Your task to perform on an android device: see creations saved in the google photos Image 0: 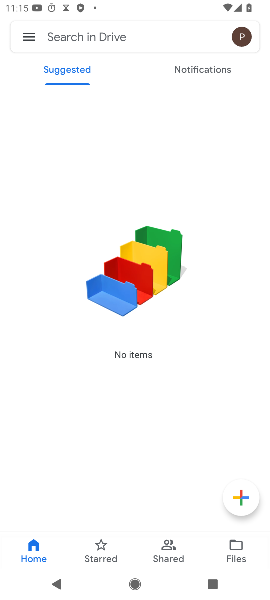
Step 0: press home button
Your task to perform on an android device: see creations saved in the google photos Image 1: 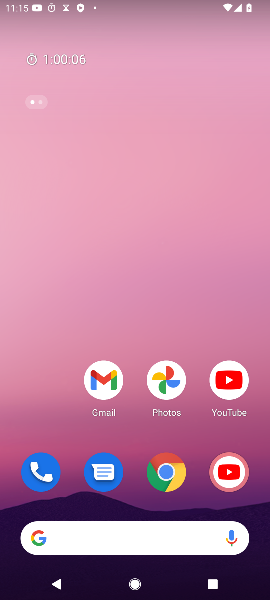
Step 1: click (163, 372)
Your task to perform on an android device: see creations saved in the google photos Image 2: 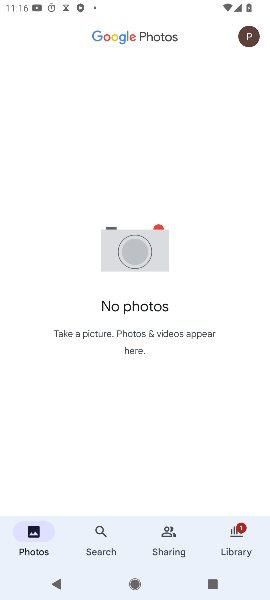
Step 2: click (99, 545)
Your task to perform on an android device: see creations saved in the google photos Image 3: 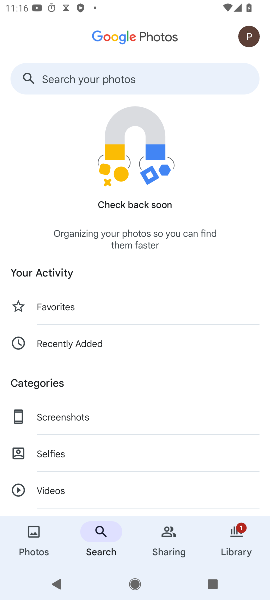
Step 3: drag from (80, 478) to (103, 161)
Your task to perform on an android device: see creations saved in the google photos Image 4: 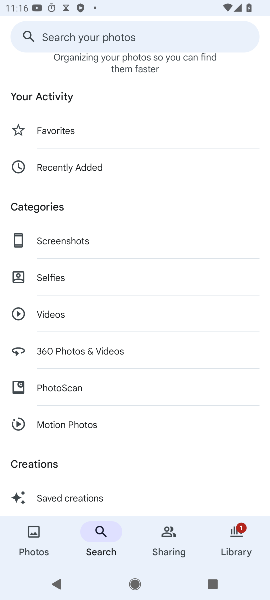
Step 4: click (121, 489)
Your task to perform on an android device: see creations saved in the google photos Image 5: 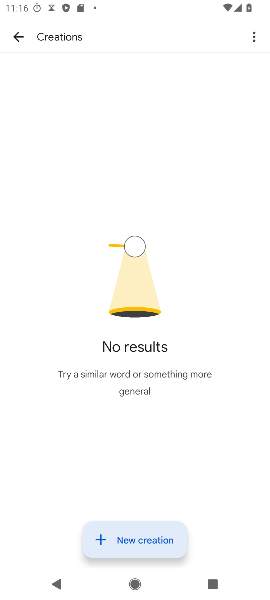
Step 5: task complete